Your task to perform on an android device: turn off location Image 0: 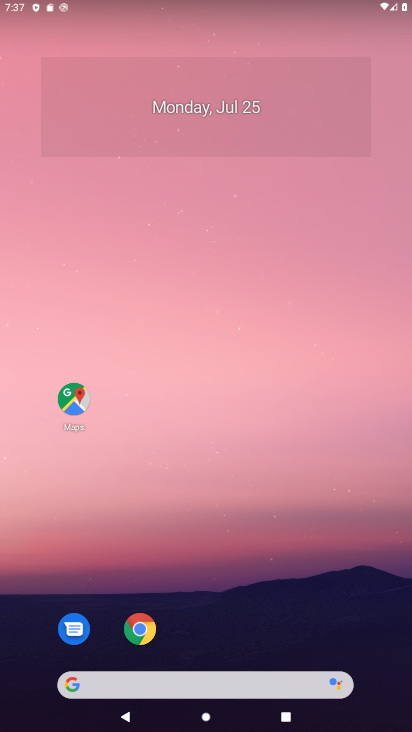
Step 0: drag from (20, 682) to (162, 174)
Your task to perform on an android device: turn off location Image 1: 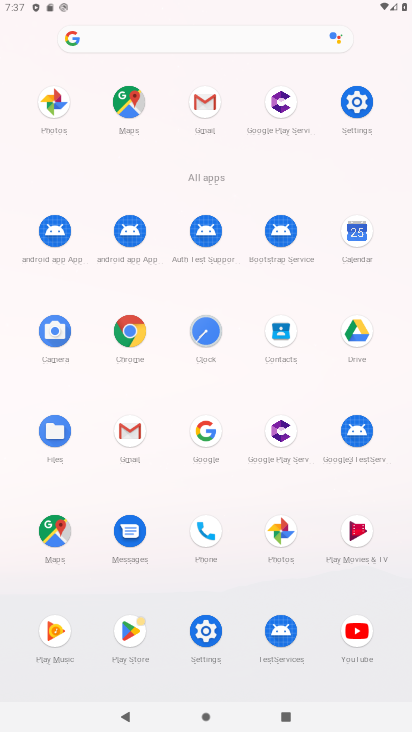
Step 1: click (210, 640)
Your task to perform on an android device: turn off location Image 2: 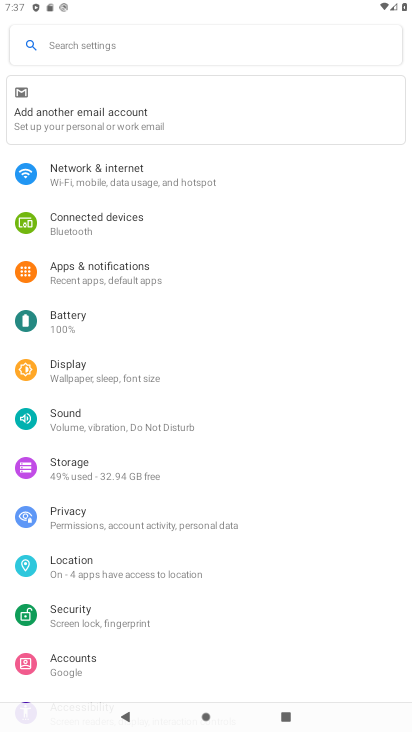
Step 2: click (63, 574)
Your task to perform on an android device: turn off location Image 3: 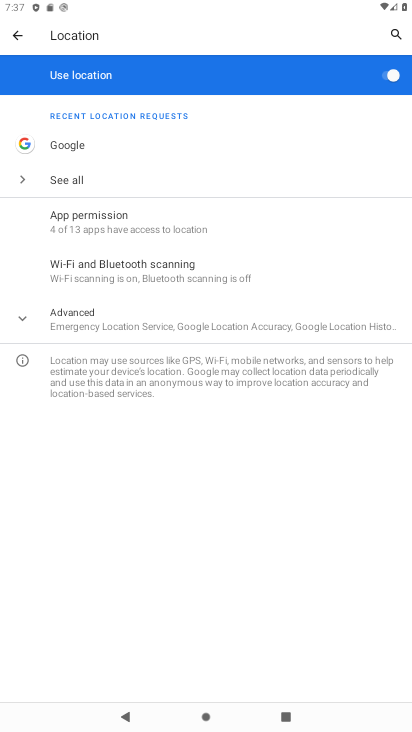
Step 3: task complete